Your task to perform on an android device: Go to privacy settings Image 0: 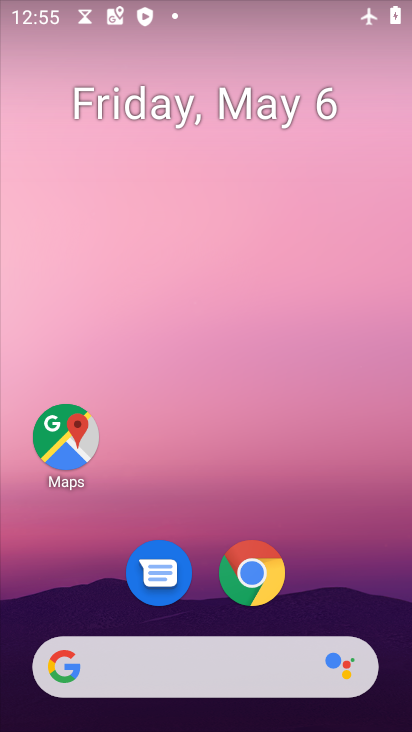
Step 0: drag from (335, 417) to (317, 289)
Your task to perform on an android device: Go to privacy settings Image 1: 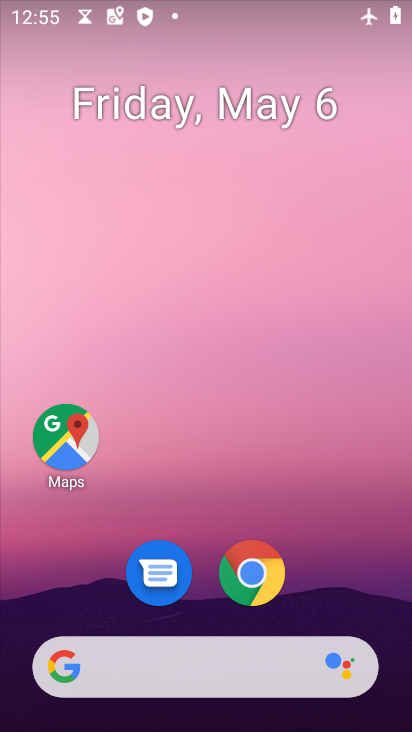
Step 1: drag from (336, 571) to (350, 253)
Your task to perform on an android device: Go to privacy settings Image 2: 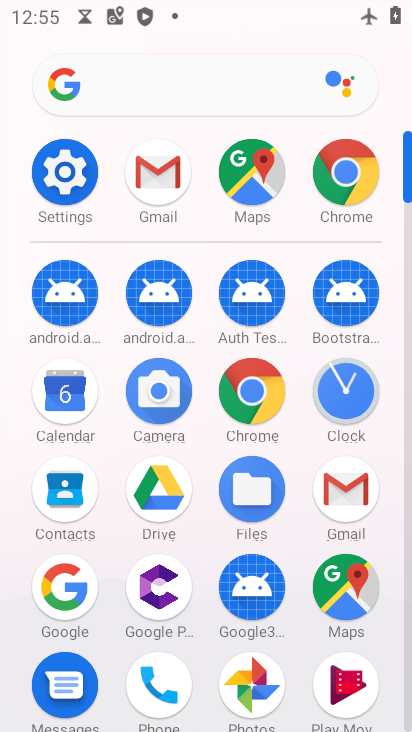
Step 2: click (240, 392)
Your task to perform on an android device: Go to privacy settings Image 3: 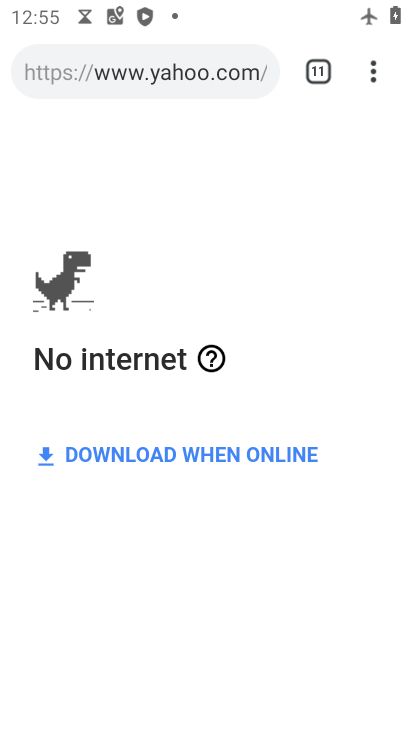
Step 3: click (354, 68)
Your task to perform on an android device: Go to privacy settings Image 4: 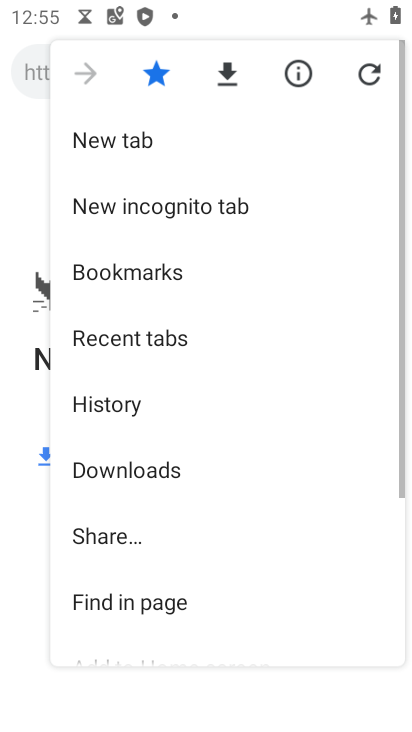
Step 4: drag from (108, 584) to (166, 344)
Your task to perform on an android device: Go to privacy settings Image 5: 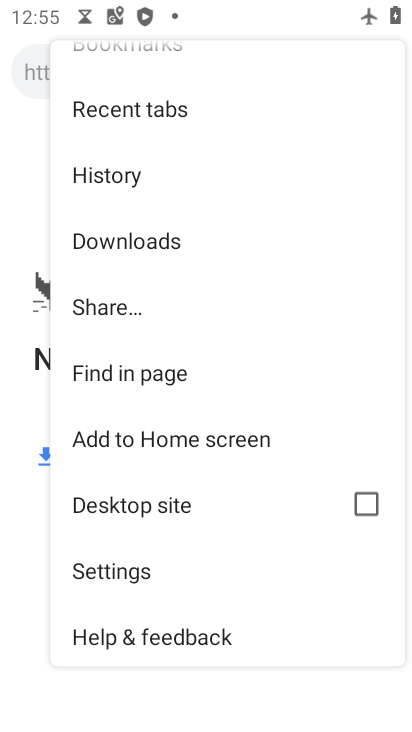
Step 5: click (136, 568)
Your task to perform on an android device: Go to privacy settings Image 6: 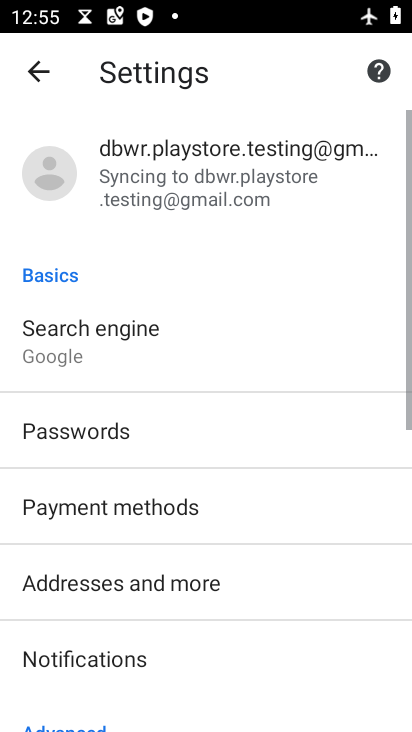
Step 6: drag from (119, 589) to (169, 266)
Your task to perform on an android device: Go to privacy settings Image 7: 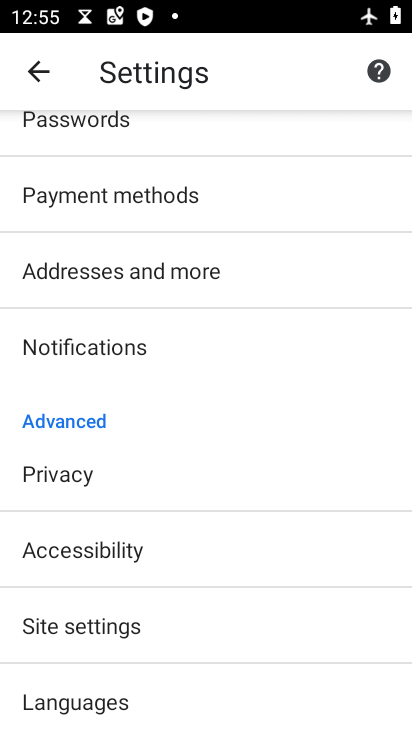
Step 7: click (96, 477)
Your task to perform on an android device: Go to privacy settings Image 8: 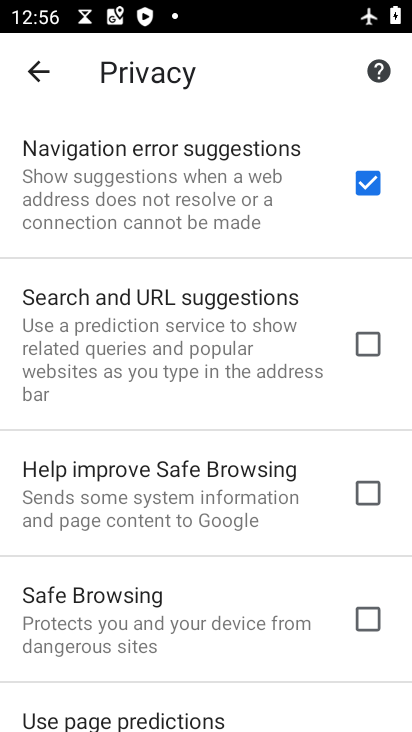
Step 8: task complete